Your task to perform on an android device: Open accessibility settings Image 0: 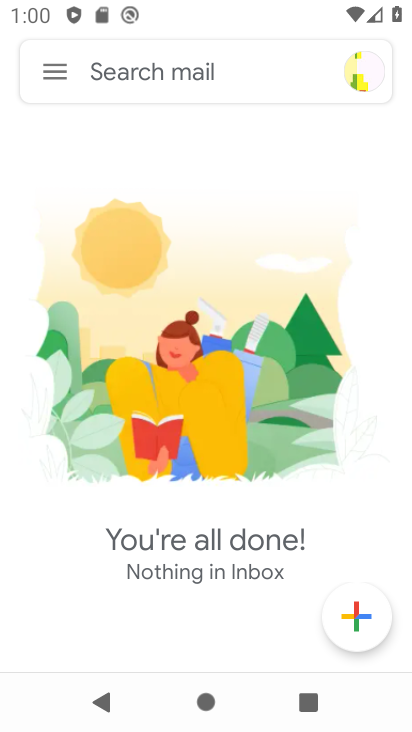
Step 0: press home button
Your task to perform on an android device: Open accessibility settings Image 1: 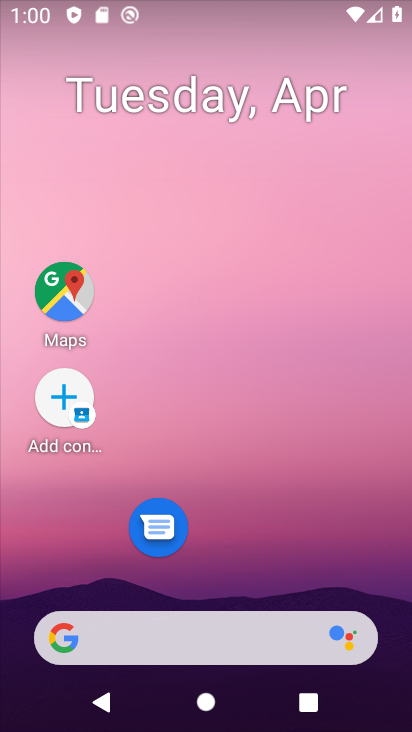
Step 1: drag from (235, 543) to (288, 3)
Your task to perform on an android device: Open accessibility settings Image 2: 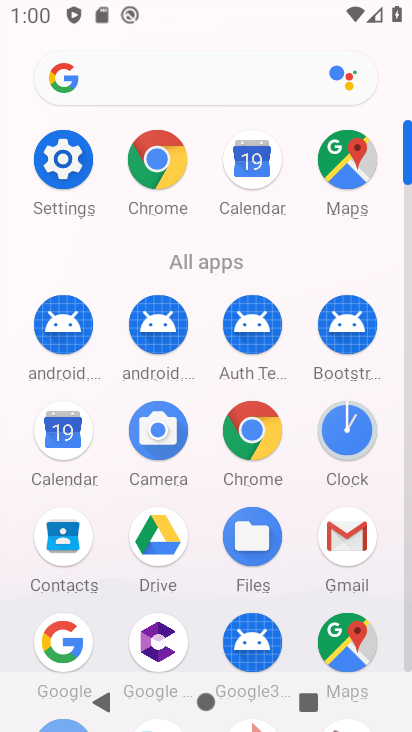
Step 2: click (62, 162)
Your task to perform on an android device: Open accessibility settings Image 3: 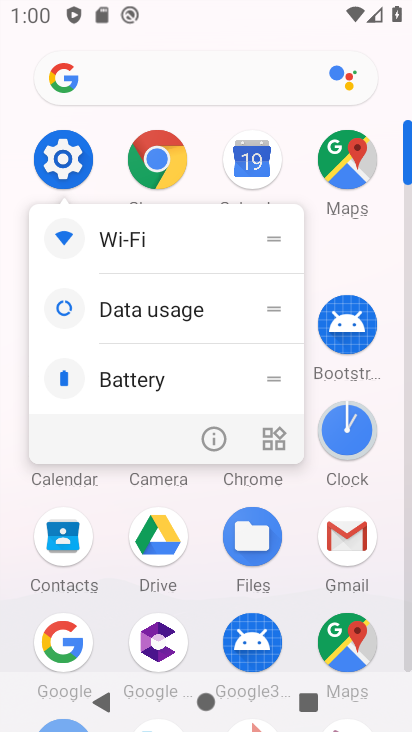
Step 3: click (62, 162)
Your task to perform on an android device: Open accessibility settings Image 4: 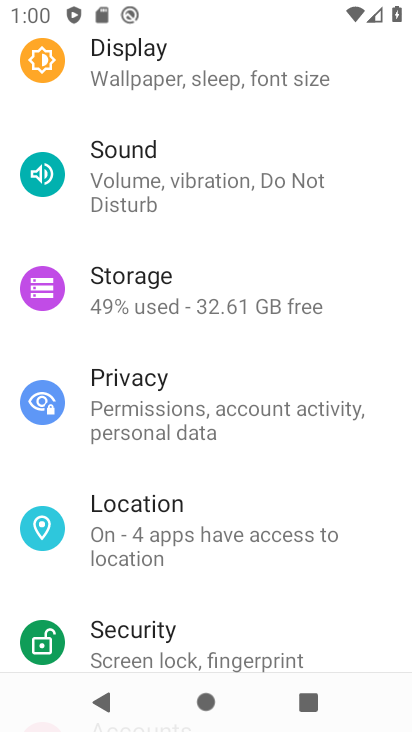
Step 4: drag from (219, 485) to (263, 338)
Your task to perform on an android device: Open accessibility settings Image 5: 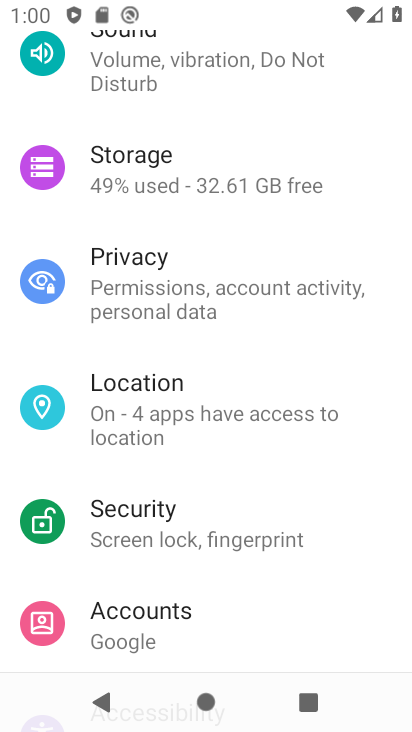
Step 5: drag from (250, 463) to (273, 362)
Your task to perform on an android device: Open accessibility settings Image 6: 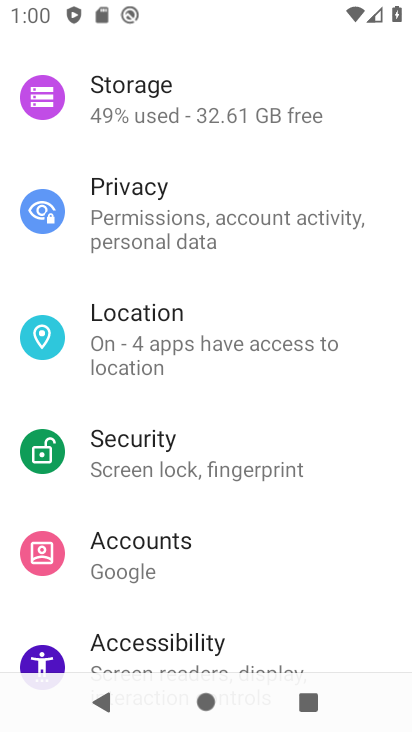
Step 6: drag from (238, 520) to (264, 401)
Your task to perform on an android device: Open accessibility settings Image 7: 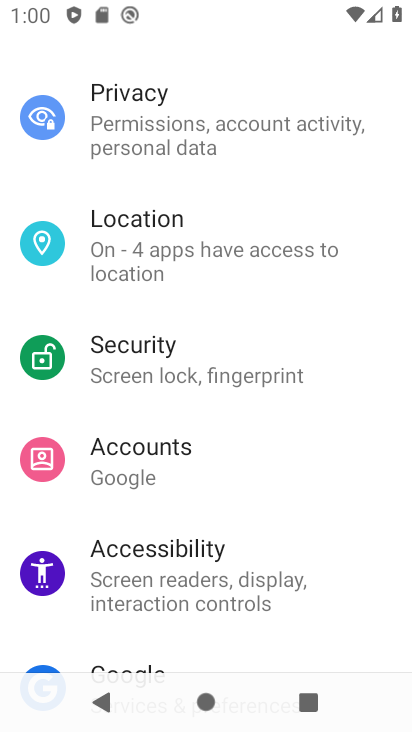
Step 7: click (203, 549)
Your task to perform on an android device: Open accessibility settings Image 8: 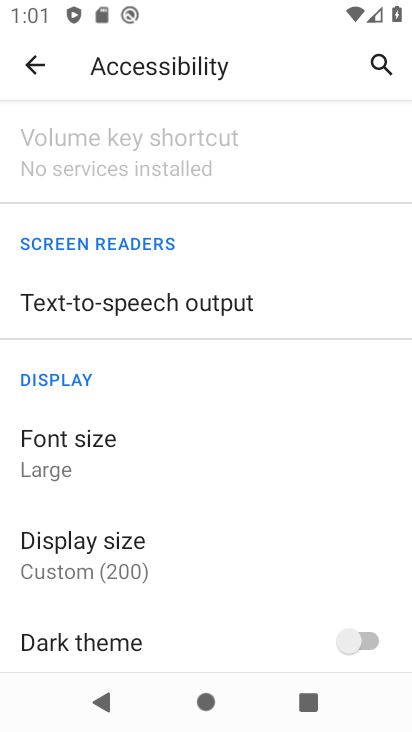
Step 8: task complete